Your task to perform on an android device: empty trash in google photos Image 0: 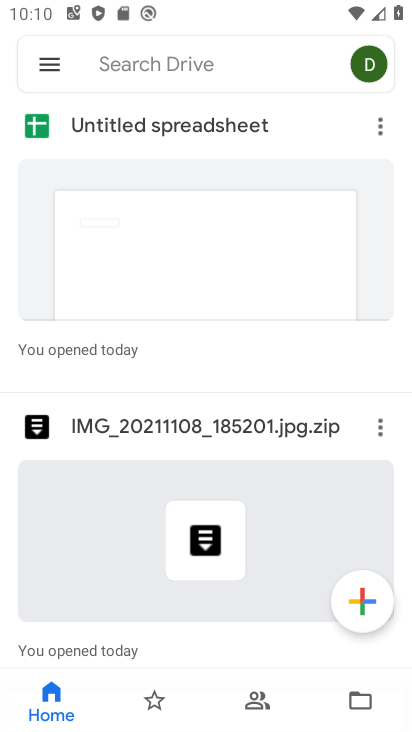
Step 0: press back button
Your task to perform on an android device: empty trash in google photos Image 1: 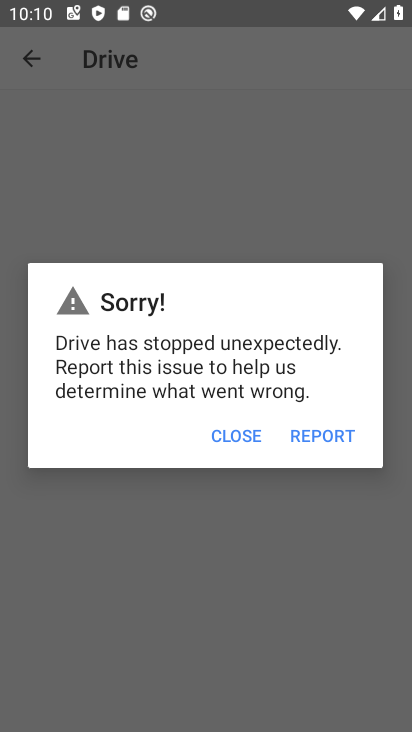
Step 1: press home button
Your task to perform on an android device: empty trash in google photos Image 2: 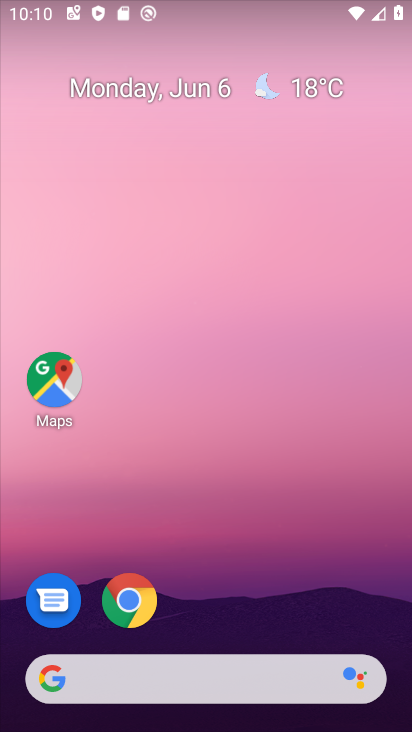
Step 2: drag from (251, 582) to (250, 13)
Your task to perform on an android device: empty trash in google photos Image 3: 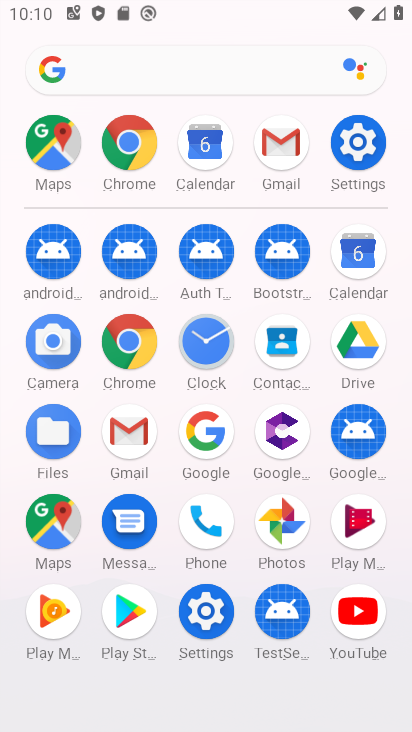
Step 3: click (279, 519)
Your task to perform on an android device: empty trash in google photos Image 4: 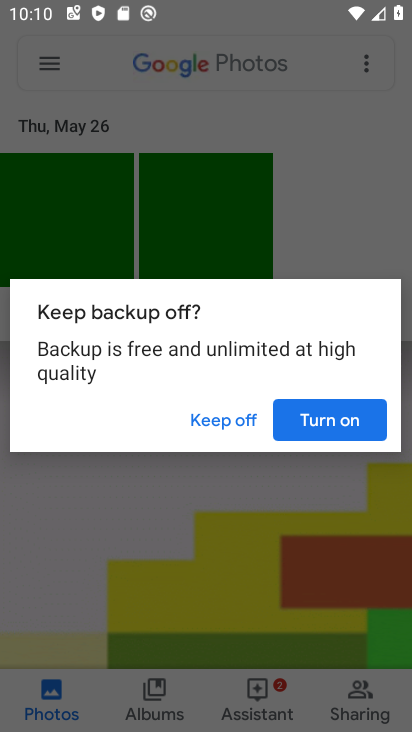
Step 4: click (308, 395)
Your task to perform on an android device: empty trash in google photos Image 5: 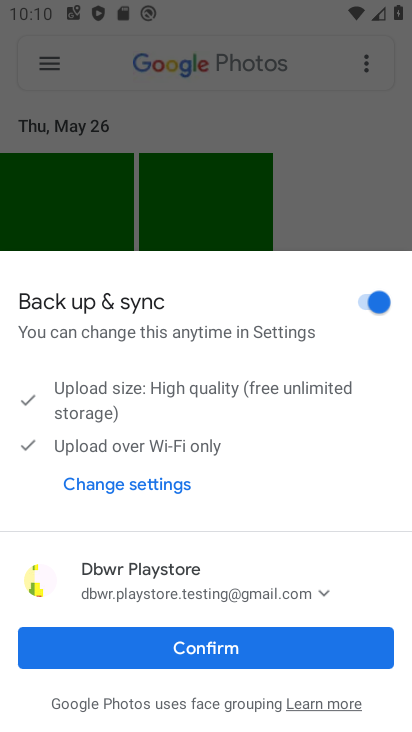
Step 5: click (235, 642)
Your task to perform on an android device: empty trash in google photos Image 6: 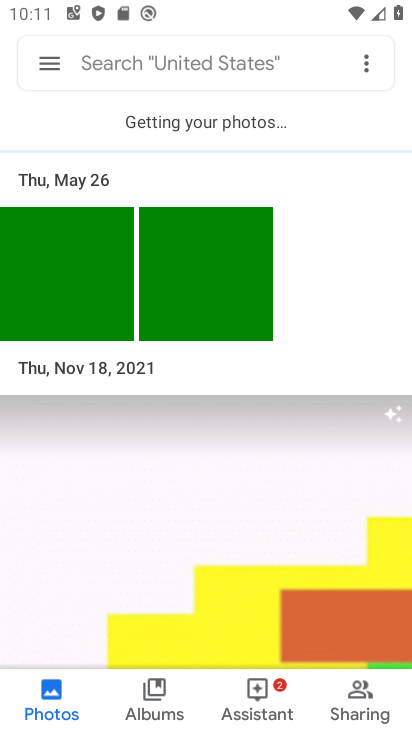
Step 6: task complete